Your task to perform on an android device: Open the Play Movies app and select the watchlist tab. Image 0: 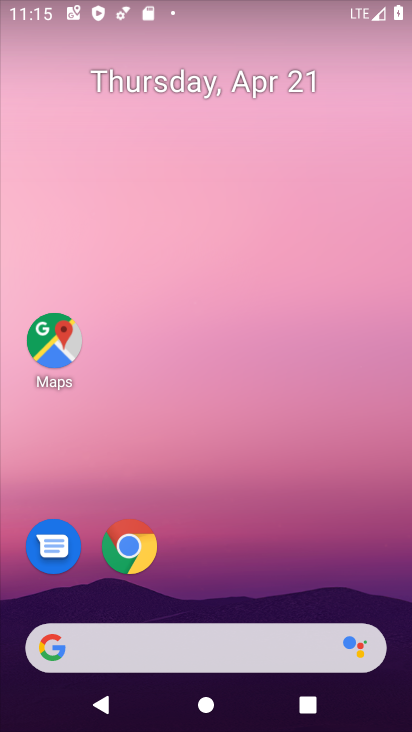
Step 0: drag from (267, 531) to (284, 89)
Your task to perform on an android device: Open the Play Movies app and select the watchlist tab. Image 1: 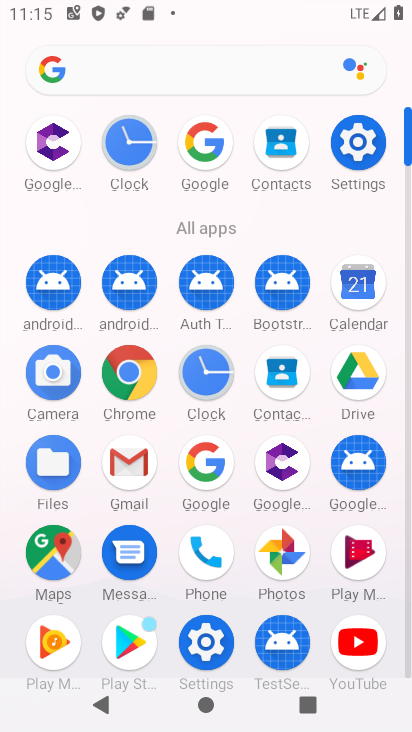
Step 1: click (347, 556)
Your task to perform on an android device: Open the Play Movies app and select the watchlist tab. Image 2: 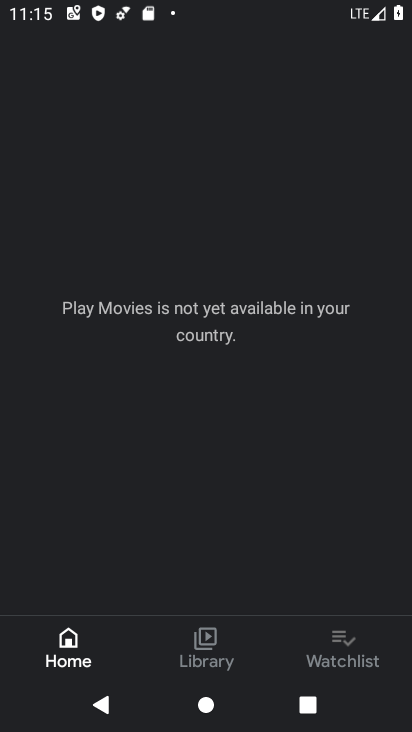
Step 2: click (333, 647)
Your task to perform on an android device: Open the Play Movies app and select the watchlist tab. Image 3: 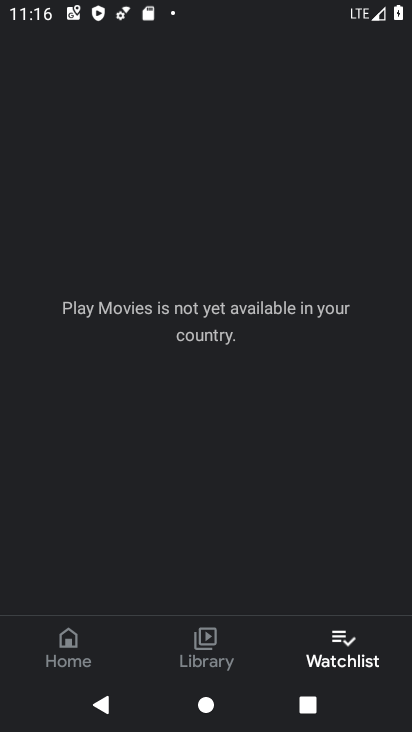
Step 3: task complete